Your task to perform on an android device: Open Chrome and go to the settings page Image 0: 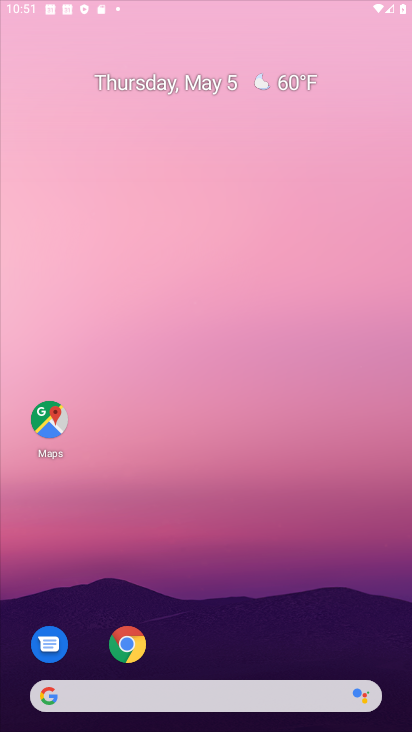
Step 0: drag from (268, 83) to (198, 7)
Your task to perform on an android device: Open Chrome and go to the settings page Image 1: 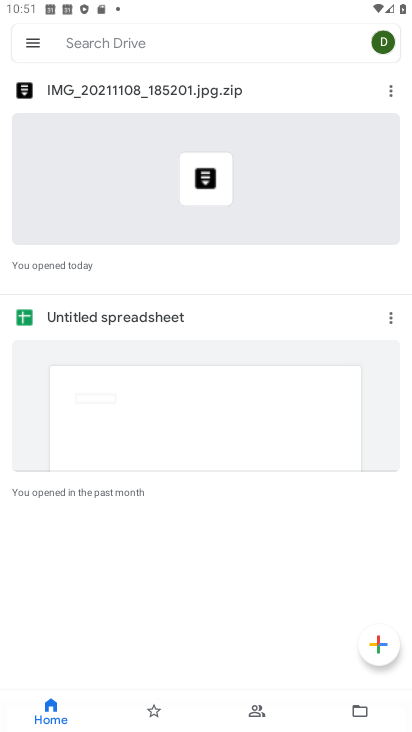
Step 1: press home button
Your task to perform on an android device: Open Chrome and go to the settings page Image 2: 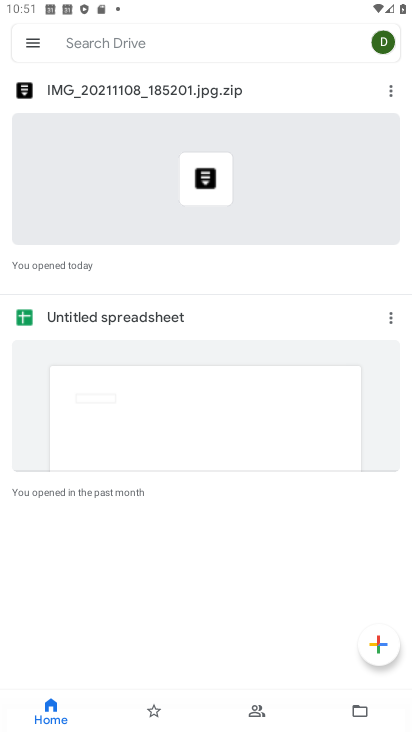
Step 2: press home button
Your task to perform on an android device: Open Chrome and go to the settings page Image 3: 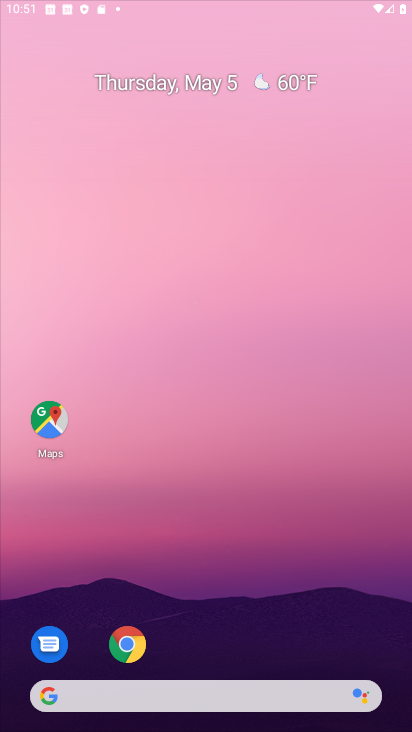
Step 3: press home button
Your task to perform on an android device: Open Chrome and go to the settings page Image 4: 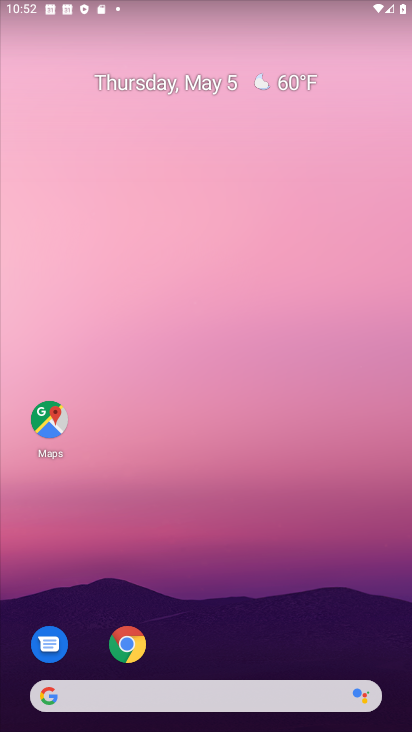
Step 4: drag from (213, 597) to (262, 71)
Your task to perform on an android device: Open Chrome and go to the settings page Image 5: 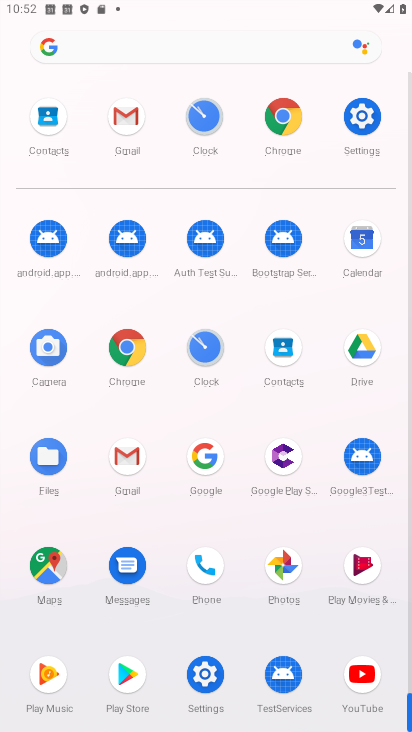
Step 5: click (124, 360)
Your task to perform on an android device: Open Chrome and go to the settings page Image 6: 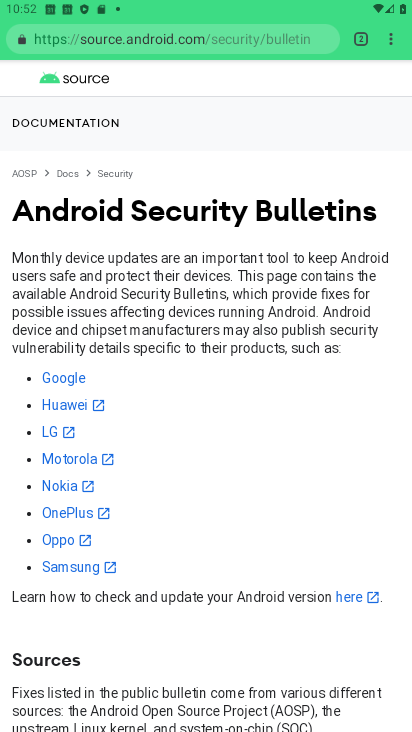
Step 6: task complete